Your task to perform on an android device: Go to Yahoo.com Image 0: 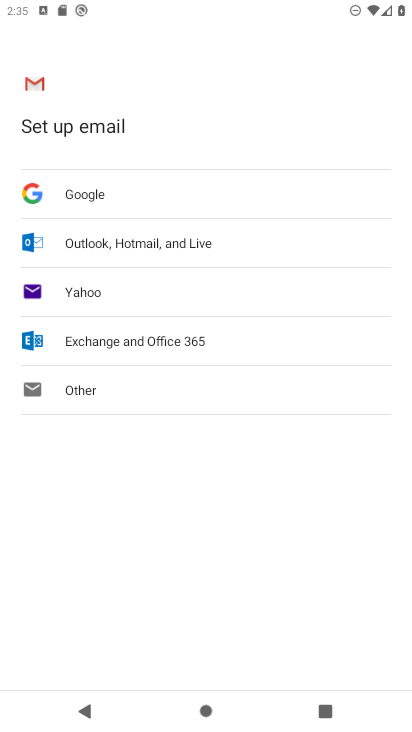
Step 0: press home button
Your task to perform on an android device: Go to Yahoo.com Image 1: 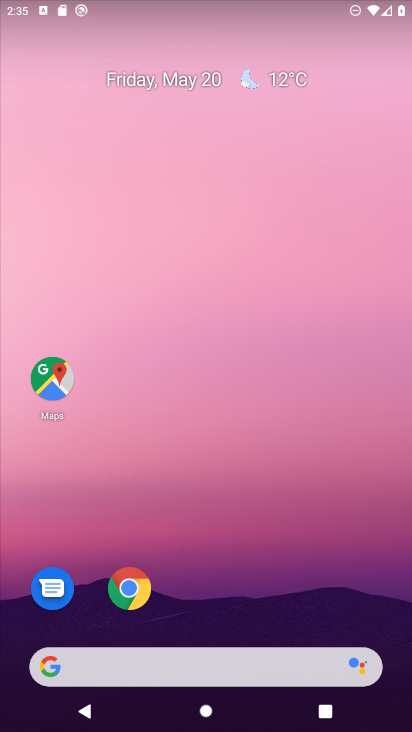
Step 1: click (129, 593)
Your task to perform on an android device: Go to Yahoo.com Image 2: 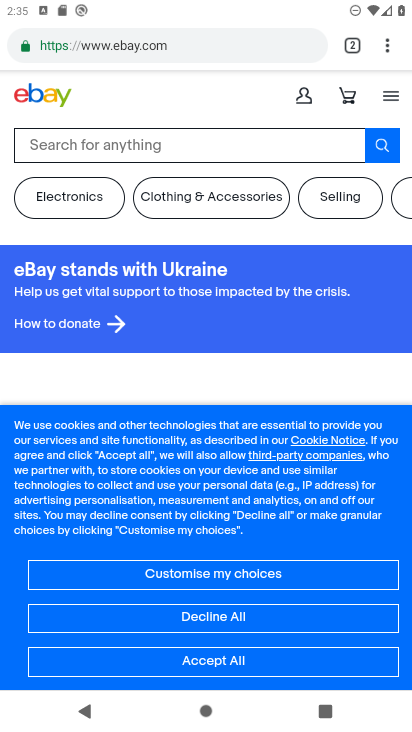
Step 2: click (187, 45)
Your task to perform on an android device: Go to Yahoo.com Image 3: 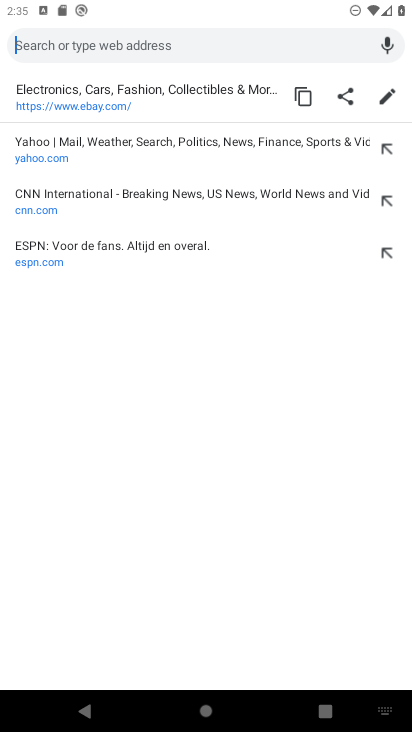
Step 3: type "yahoo.com"
Your task to perform on an android device: Go to Yahoo.com Image 4: 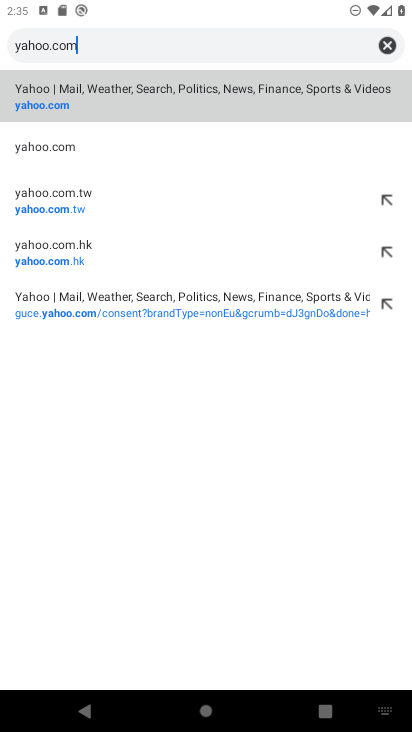
Step 4: click (73, 102)
Your task to perform on an android device: Go to Yahoo.com Image 5: 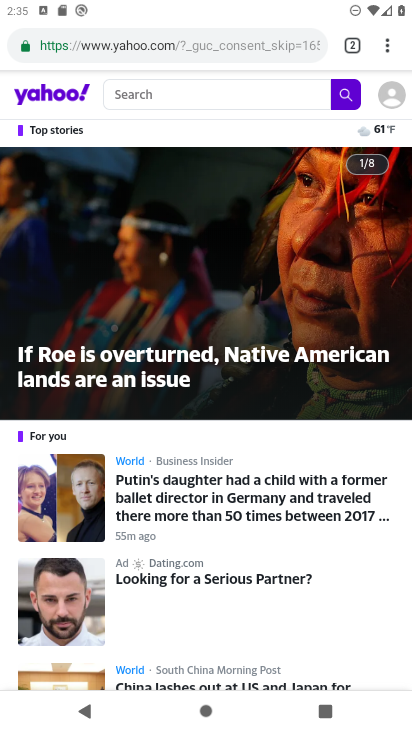
Step 5: task complete